Your task to perform on an android device: Go to CNN.com Image 0: 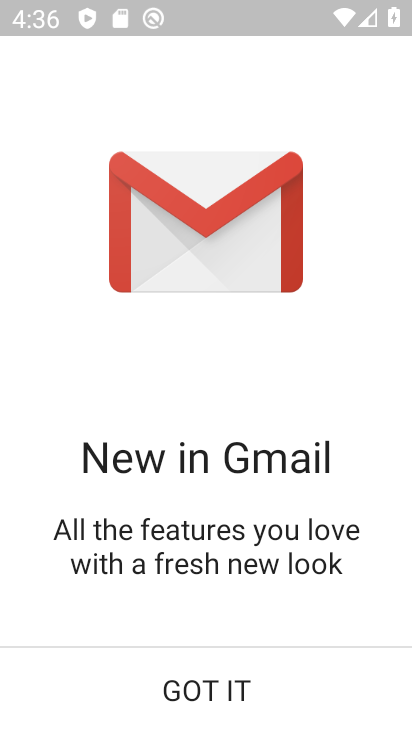
Step 0: press home button
Your task to perform on an android device: Go to CNN.com Image 1: 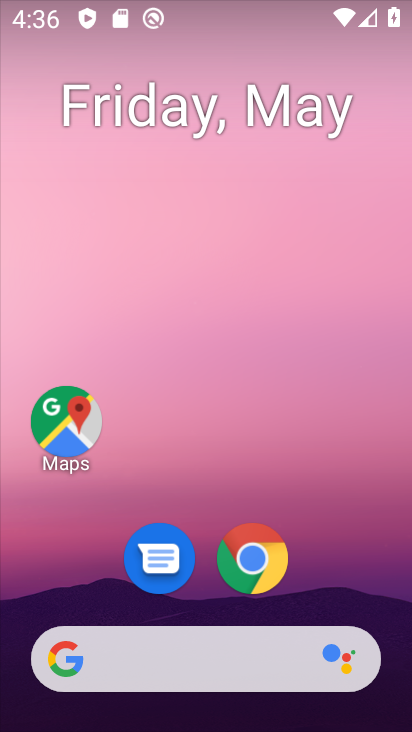
Step 1: click (265, 572)
Your task to perform on an android device: Go to CNN.com Image 2: 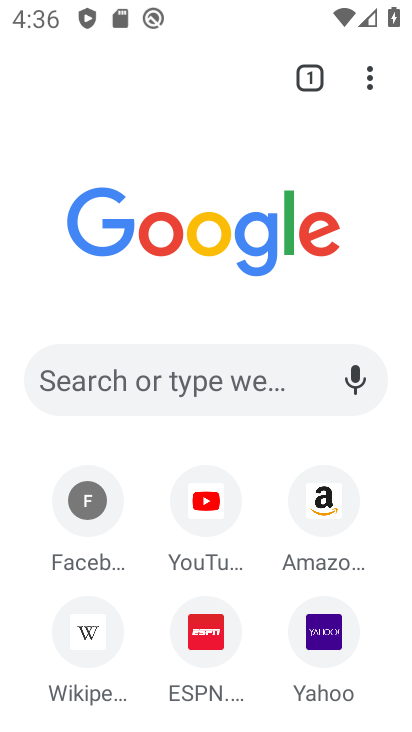
Step 2: click (250, 356)
Your task to perform on an android device: Go to CNN.com Image 3: 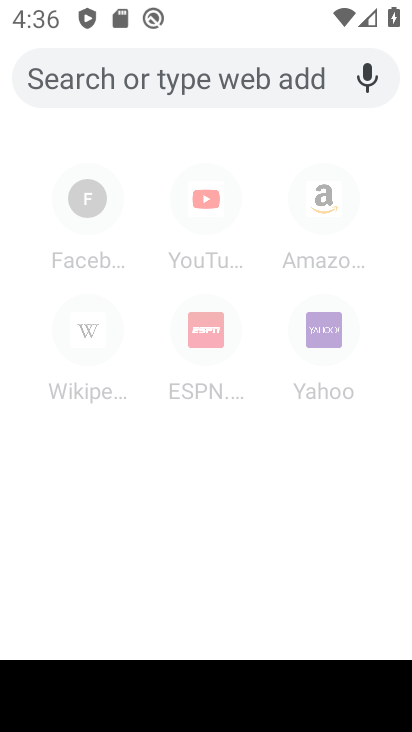
Step 3: type "cnn.com"
Your task to perform on an android device: Go to CNN.com Image 4: 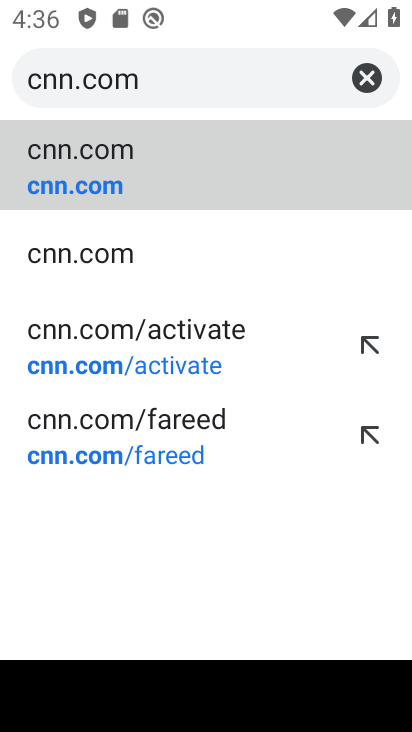
Step 4: click (77, 189)
Your task to perform on an android device: Go to CNN.com Image 5: 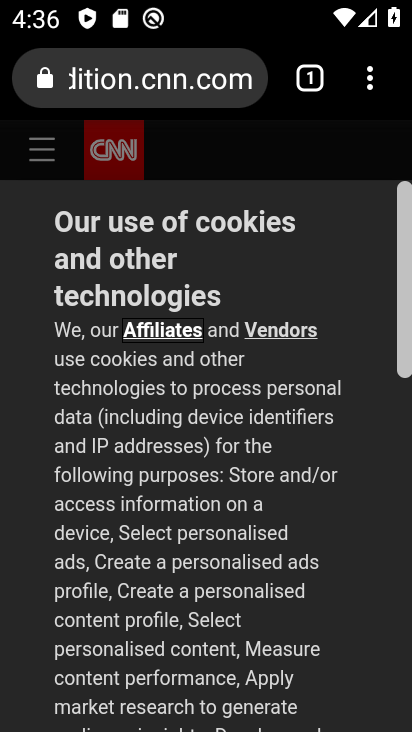
Step 5: task complete